Your task to perform on an android device: Go to Reddit.com Image 0: 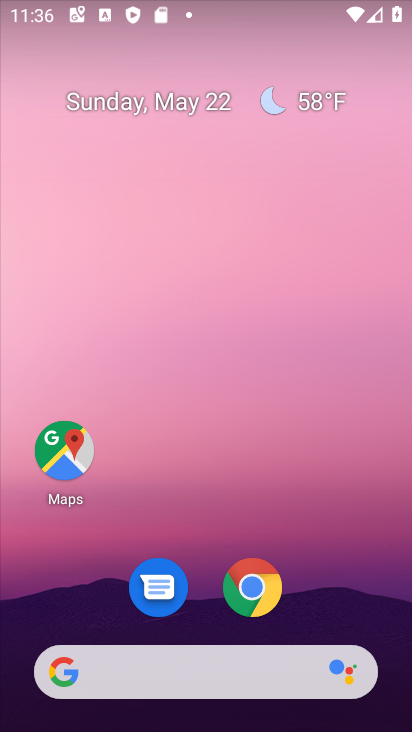
Step 0: click (251, 667)
Your task to perform on an android device: Go to Reddit.com Image 1: 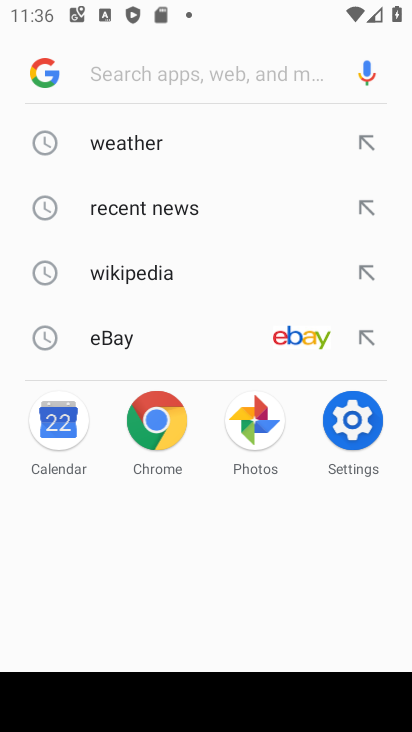
Step 1: type "reddit.com"
Your task to perform on an android device: Go to Reddit.com Image 2: 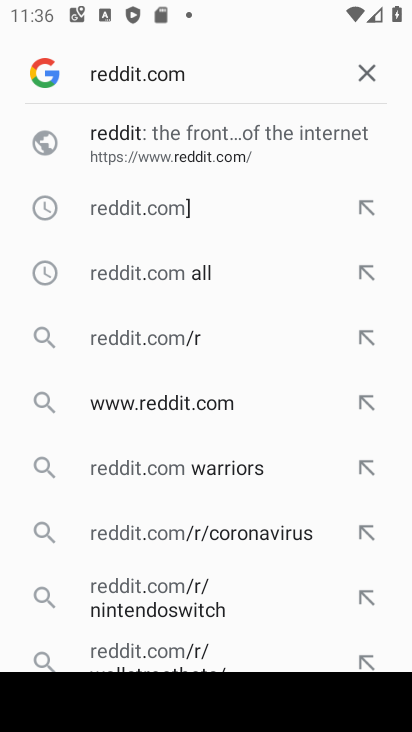
Step 2: click (133, 143)
Your task to perform on an android device: Go to Reddit.com Image 3: 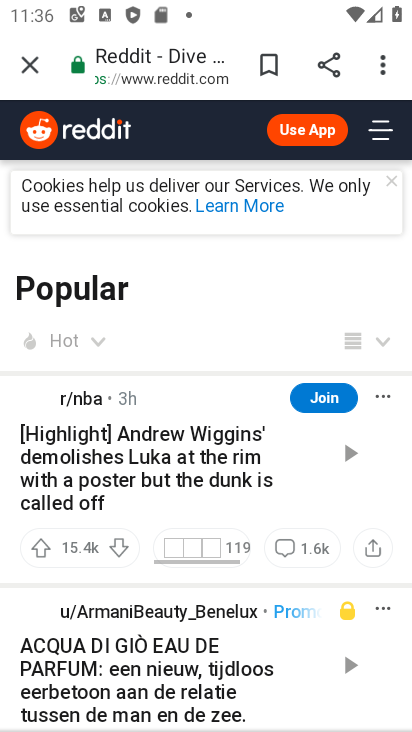
Step 3: task complete